Your task to perform on an android device: check the backup settings in the google photos Image 0: 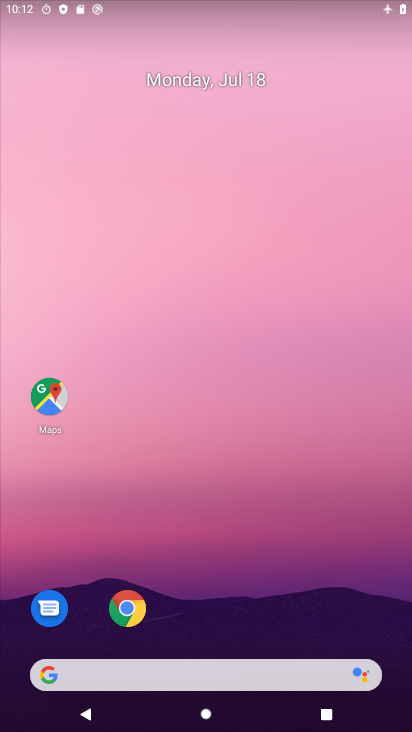
Step 0: drag from (246, 434) to (254, 142)
Your task to perform on an android device: check the backup settings in the google photos Image 1: 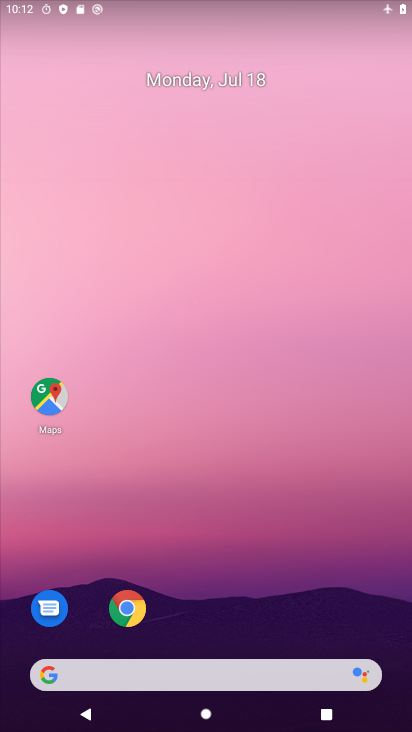
Step 1: click (266, 77)
Your task to perform on an android device: check the backup settings in the google photos Image 2: 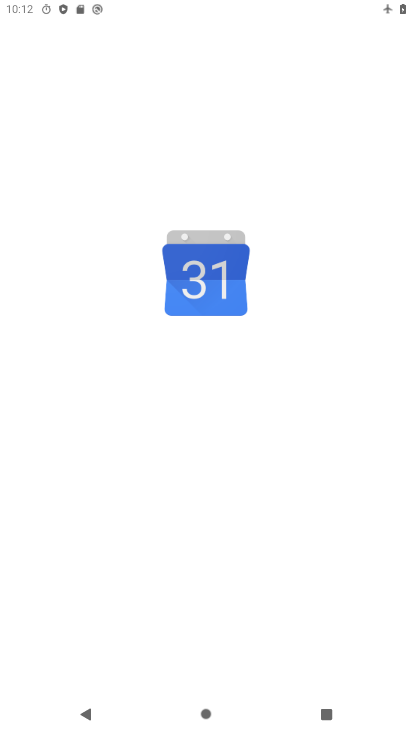
Step 2: drag from (215, 558) to (211, 119)
Your task to perform on an android device: check the backup settings in the google photos Image 3: 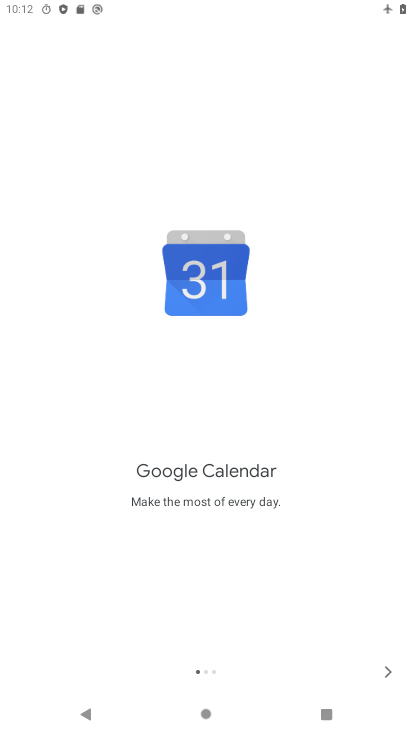
Step 3: click (392, 675)
Your task to perform on an android device: check the backup settings in the google photos Image 4: 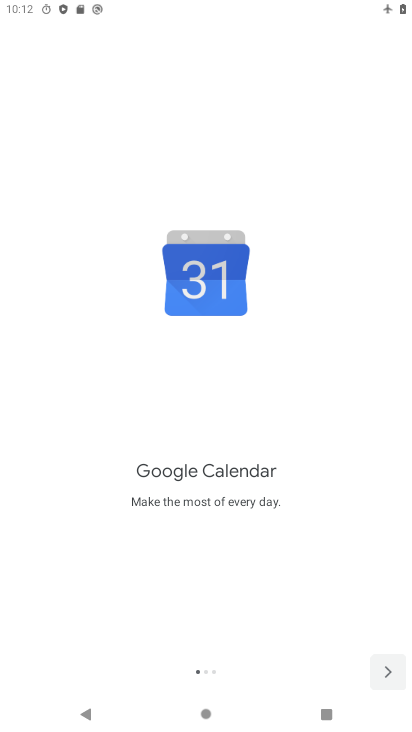
Step 4: click (388, 671)
Your task to perform on an android device: check the backup settings in the google photos Image 5: 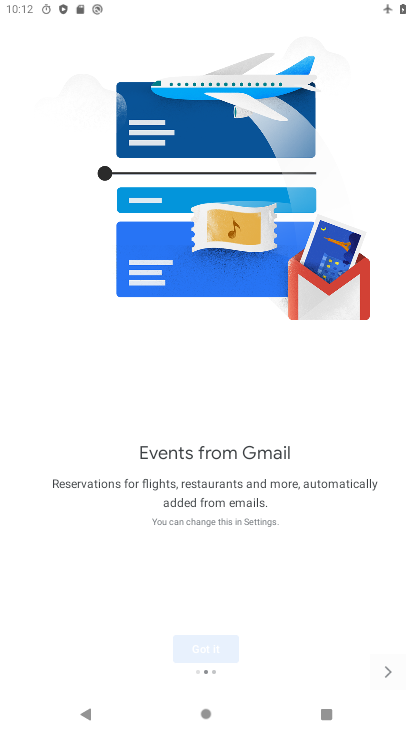
Step 5: click (386, 671)
Your task to perform on an android device: check the backup settings in the google photos Image 6: 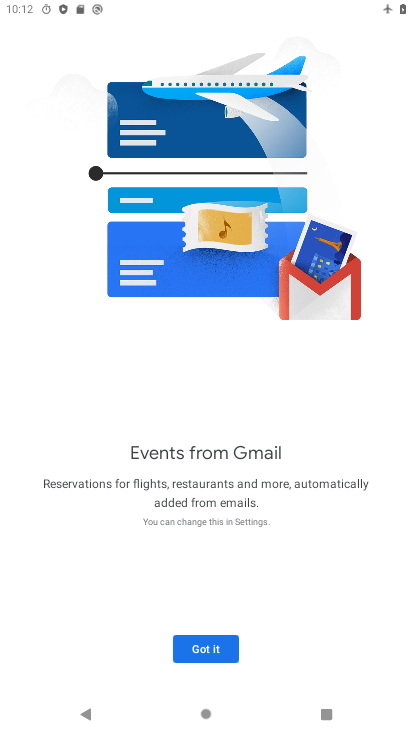
Step 6: click (219, 650)
Your task to perform on an android device: check the backup settings in the google photos Image 7: 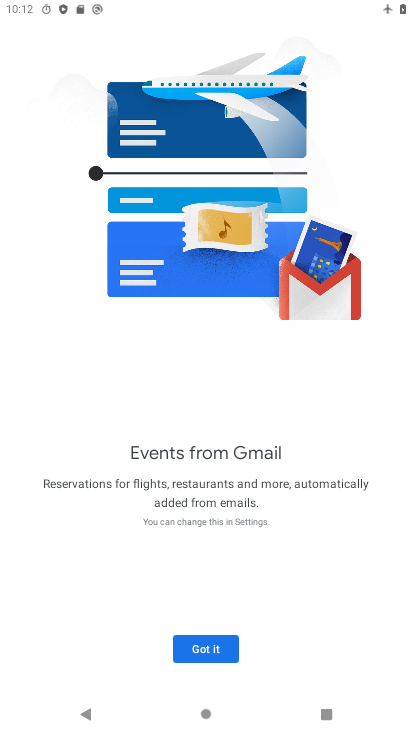
Step 7: click (218, 650)
Your task to perform on an android device: check the backup settings in the google photos Image 8: 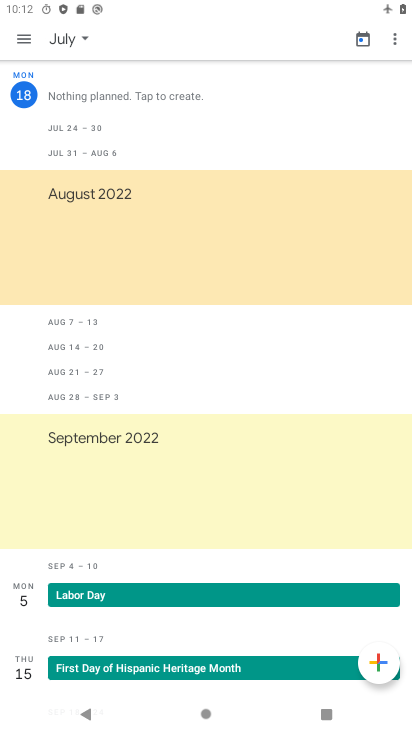
Step 8: press home button
Your task to perform on an android device: check the backup settings in the google photos Image 9: 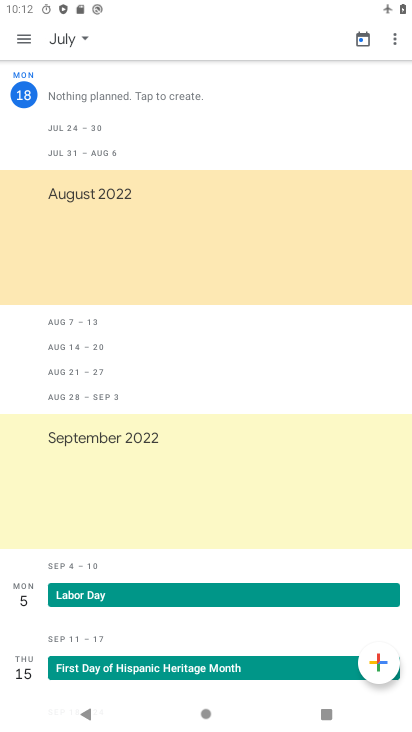
Step 9: press home button
Your task to perform on an android device: check the backup settings in the google photos Image 10: 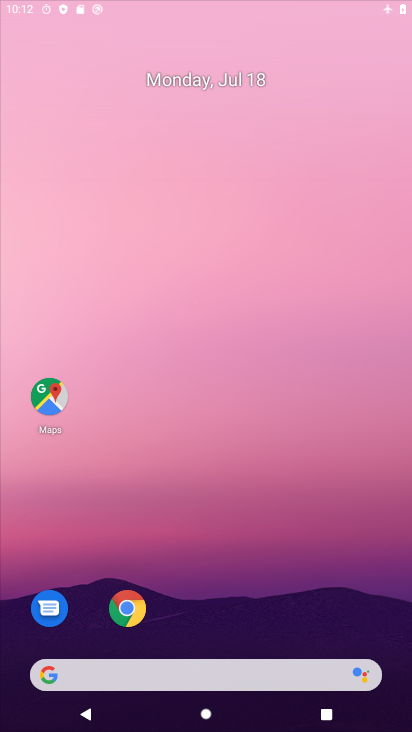
Step 10: press home button
Your task to perform on an android device: check the backup settings in the google photos Image 11: 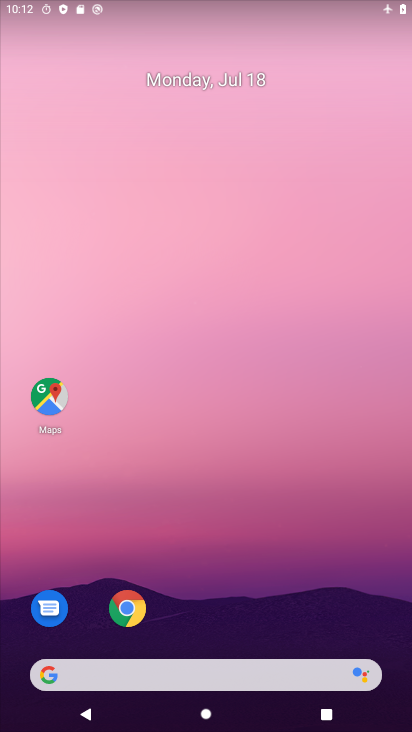
Step 11: drag from (225, 589) to (238, 89)
Your task to perform on an android device: check the backup settings in the google photos Image 12: 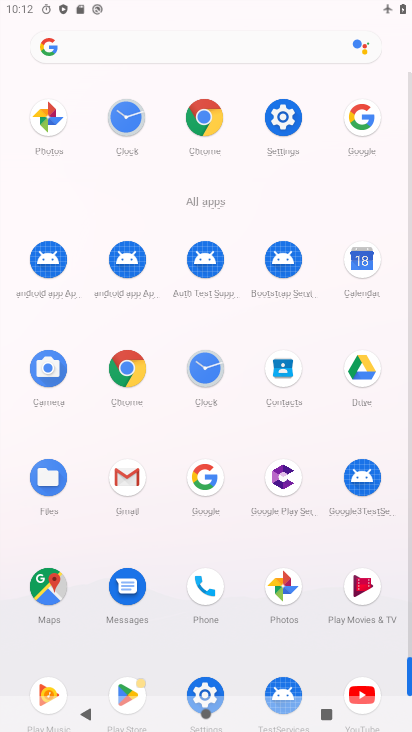
Step 12: click (295, 576)
Your task to perform on an android device: check the backup settings in the google photos Image 13: 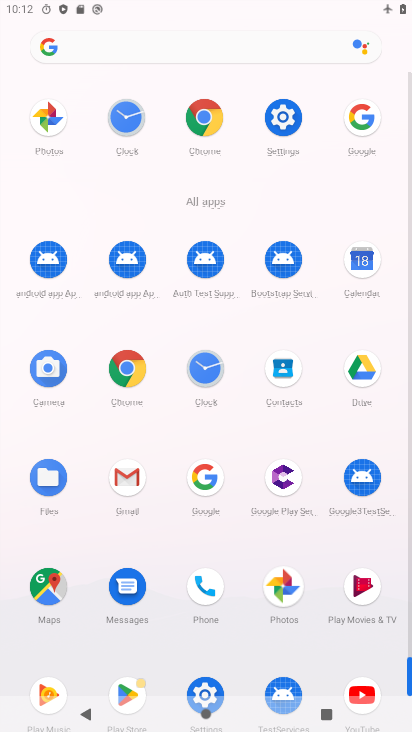
Step 13: click (288, 585)
Your task to perform on an android device: check the backup settings in the google photos Image 14: 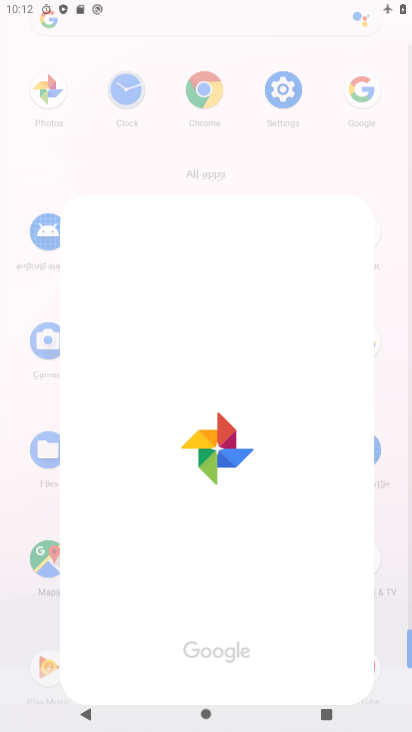
Step 14: click (289, 588)
Your task to perform on an android device: check the backup settings in the google photos Image 15: 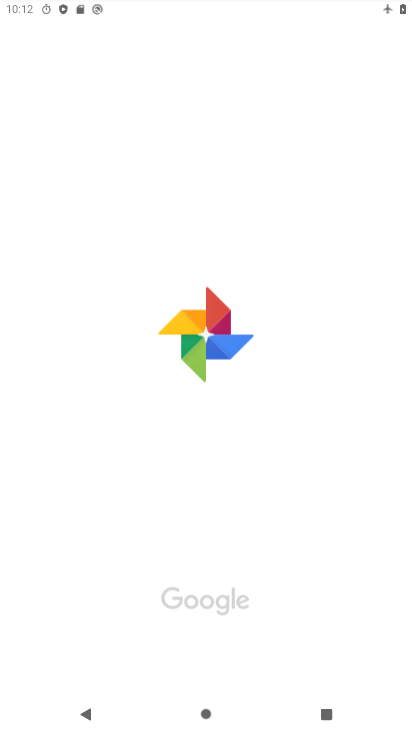
Step 15: click (290, 589)
Your task to perform on an android device: check the backup settings in the google photos Image 16: 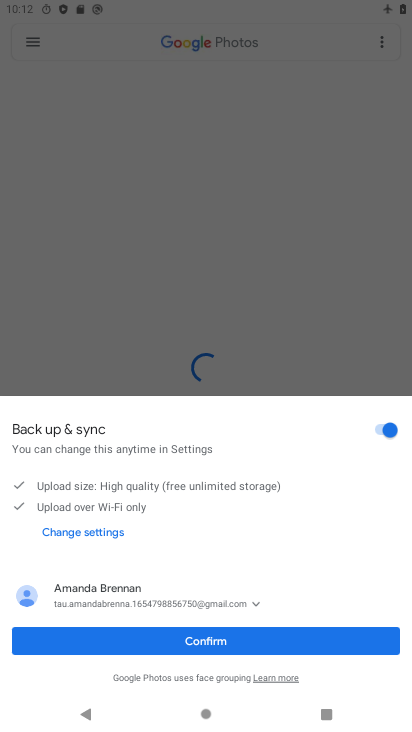
Step 16: click (28, 48)
Your task to perform on an android device: check the backup settings in the google photos Image 17: 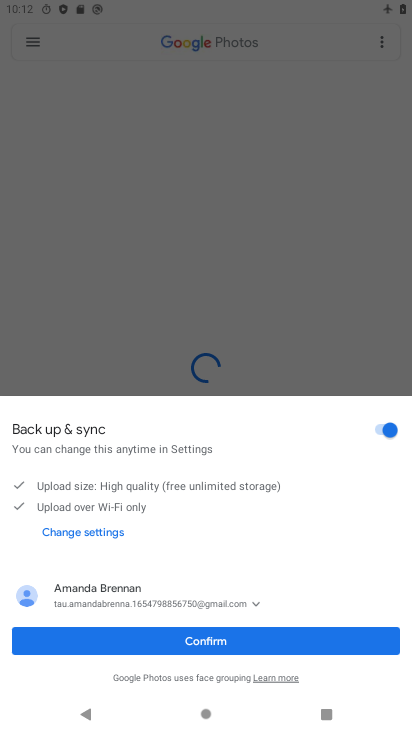
Step 17: click (30, 48)
Your task to perform on an android device: check the backup settings in the google photos Image 18: 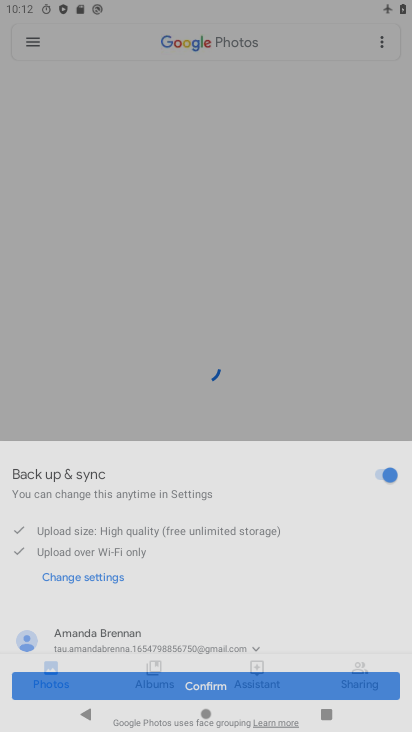
Step 18: click (35, 50)
Your task to perform on an android device: check the backup settings in the google photos Image 19: 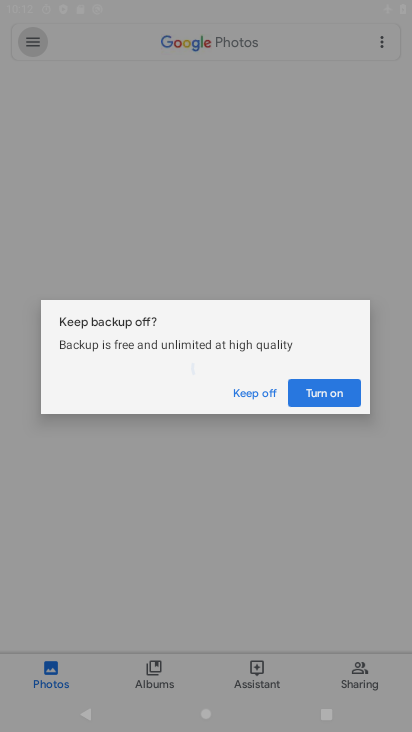
Step 19: click (40, 54)
Your task to perform on an android device: check the backup settings in the google photos Image 20: 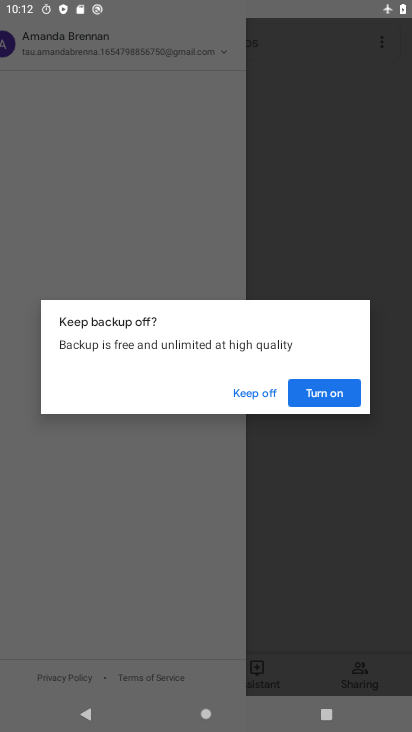
Step 20: drag from (42, 55) to (242, 459)
Your task to perform on an android device: check the backup settings in the google photos Image 21: 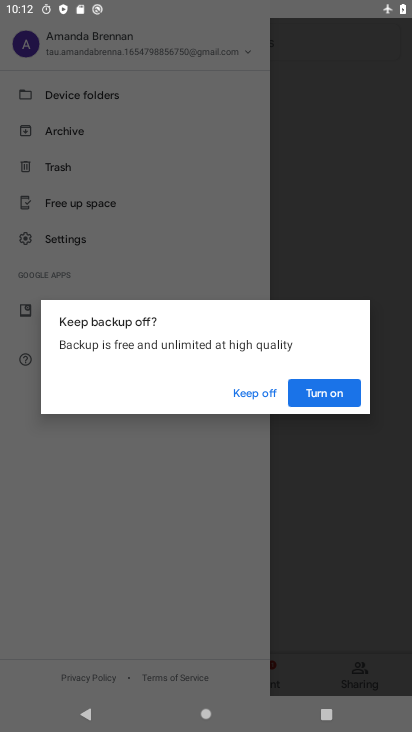
Step 21: click (260, 381)
Your task to perform on an android device: check the backup settings in the google photos Image 22: 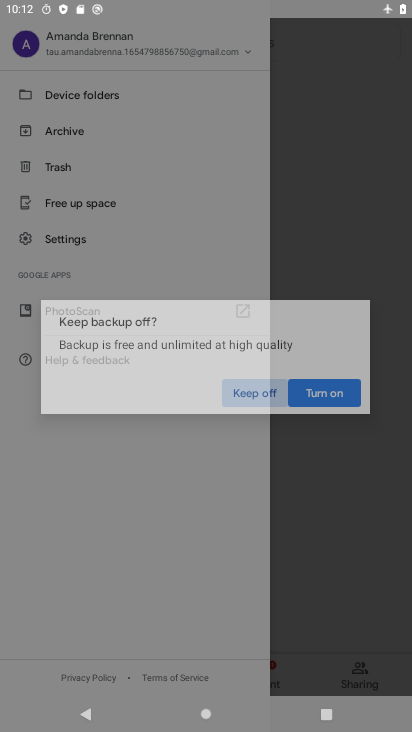
Step 22: click (262, 393)
Your task to perform on an android device: check the backup settings in the google photos Image 23: 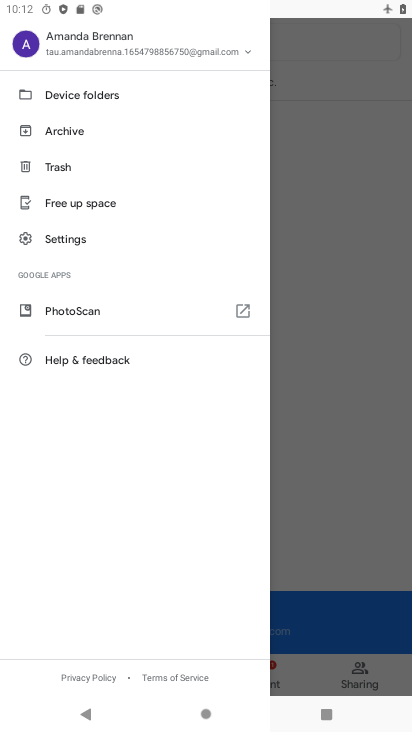
Step 23: click (75, 244)
Your task to perform on an android device: check the backup settings in the google photos Image 24: 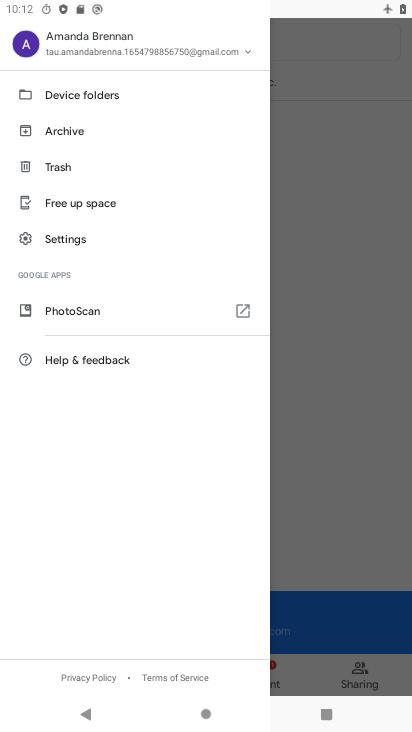
Step 24: click (77, 246)
Your task to perform on an android device: check the backup settings in the google photos Image 25: 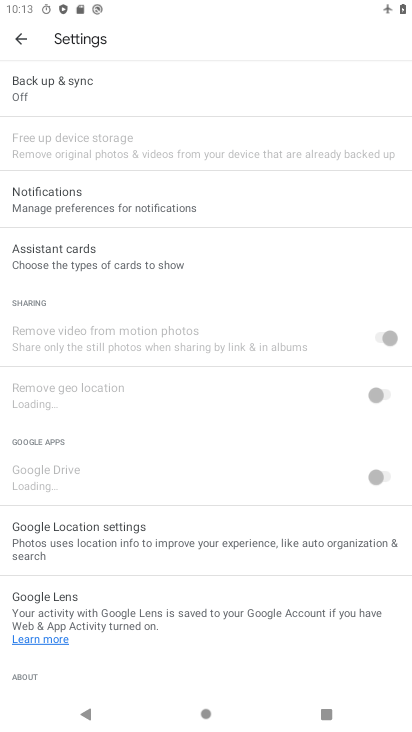
Step 25: click (49, 75)
Your task to perform on an android device: check the backup settings in the google photos Image 26: 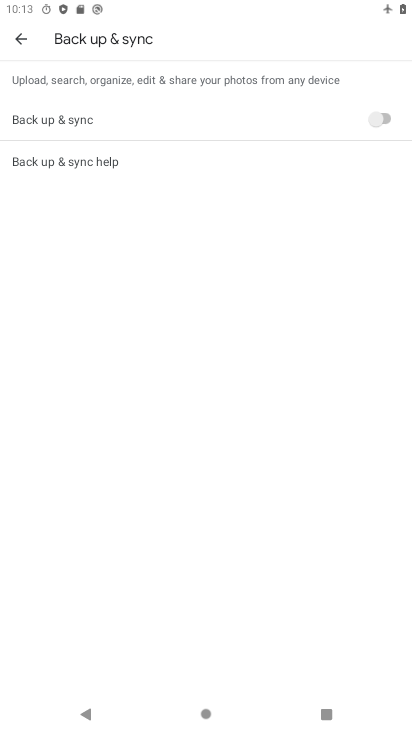
Step 26: click (70, 111)
Your task to perform on an android device: check the backup settings in the google photos Image 27: 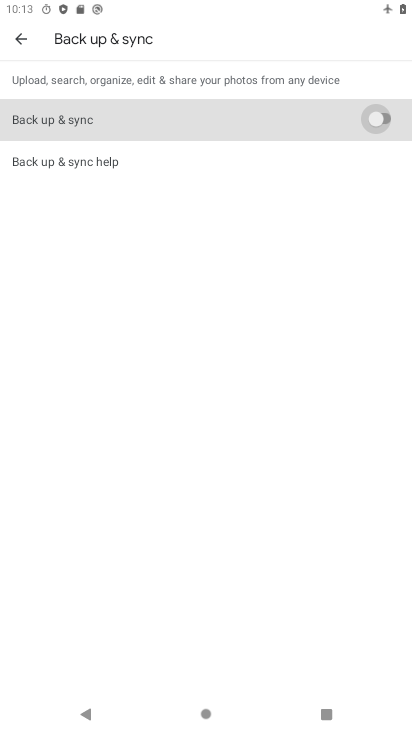
Step 27: click (75, 114)
Your task to perform on an android device: check the backup settings in the google photos Image 28: 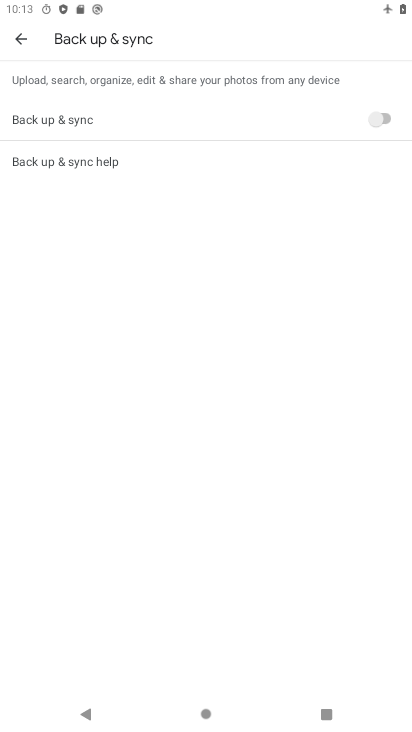
Step 28: click (86, 117)
Your task to perform on an android device: check the backup settings in the google photos Image 29: 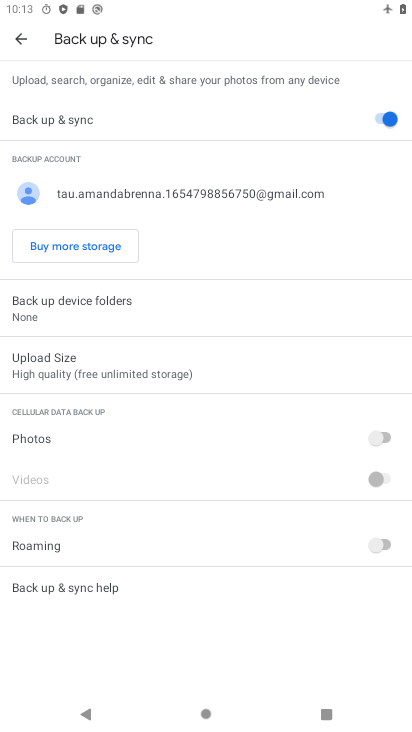
Step 29: click (72, 368)
Your task to perform on an android device: check the backup settings in the google photos Image 30: 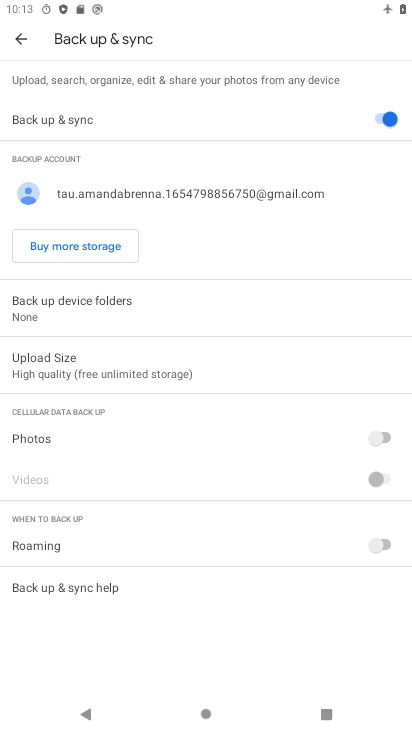
Step 30: click (74, 367)
Your task to perform on an android device: check the backup settings in the google photos Image 31: 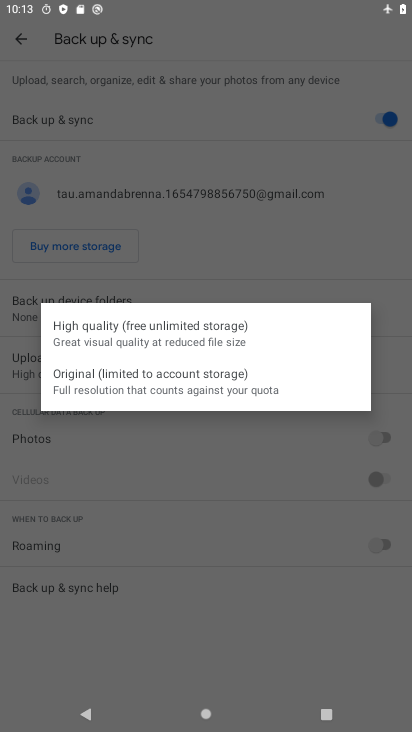
Step 31: click (78, 369)
Your task to perform on an android device: check the backup settings in the google photos Image 32: 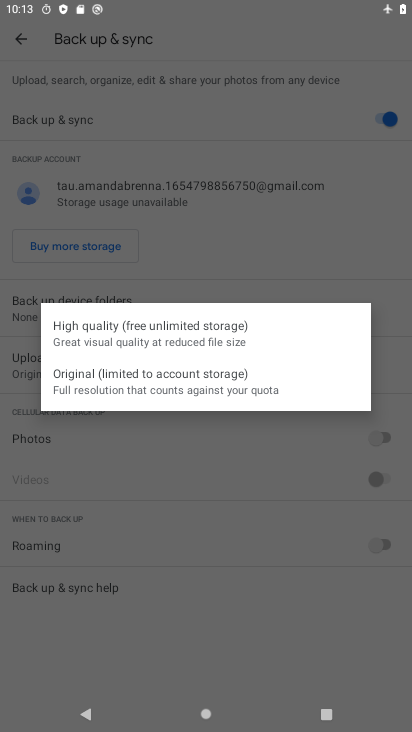
Step 32: task complete